Your task to perform on an android device: check android version Image 0: 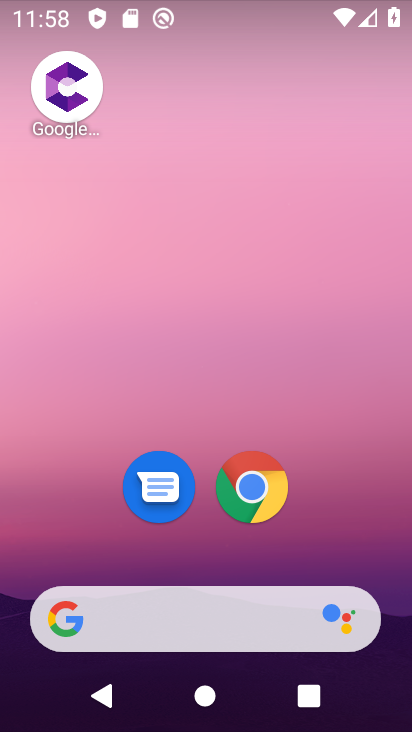
Step 0: drag from (370, 533) to (339, 89)
Your task to perform on an android device: check android version Image 1: 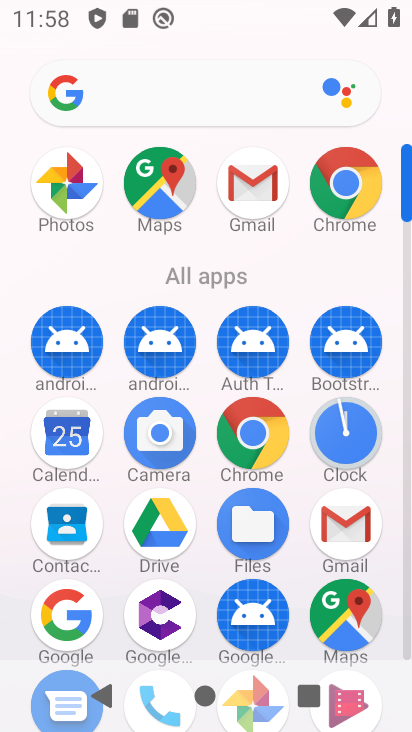
Step 1: click (406, 655)
Your task to perform on an android device: check android version Image 2: 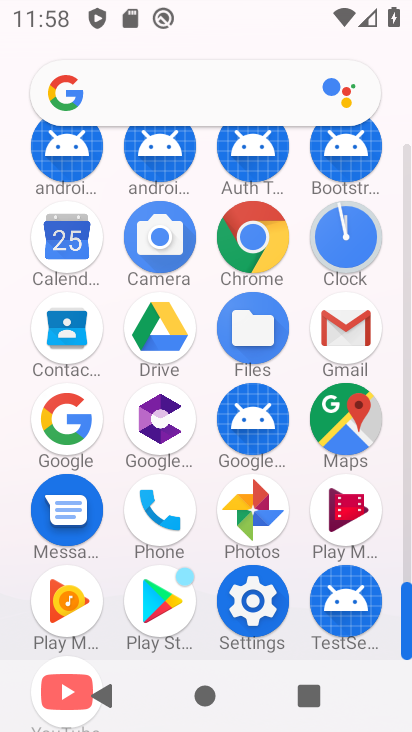
Step 2: click (250, 615)
Your task to perform on an android device: check android version Image 3: 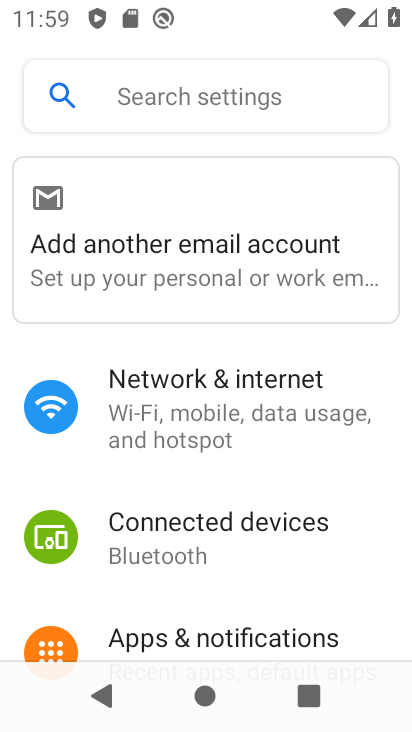
Step 3: drag from (264, 499) to (268, 309)
Your task to perform on an android device: check android version Image 4: 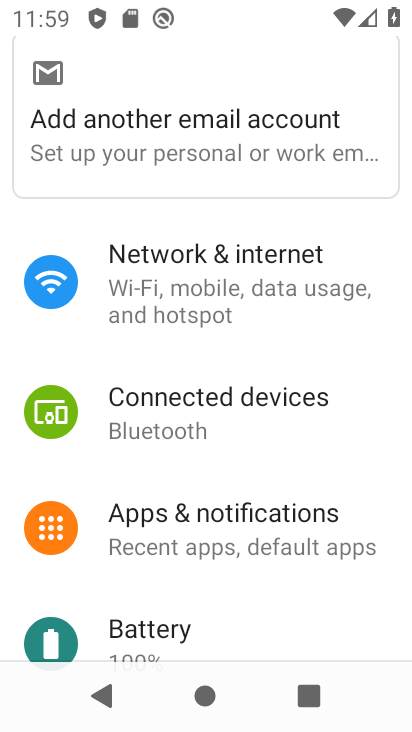
Step 4: drag from (300, 488) to (301, 87)
Your task to perform on an android device: check android version Image 5: 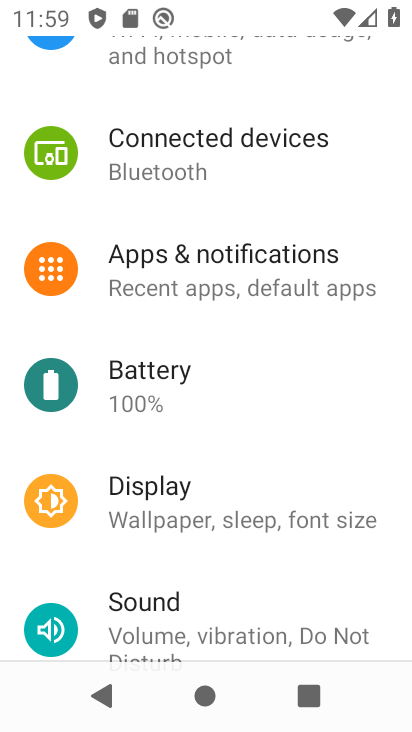
Step 5: drag from (321, 376) to (321, 113)
Your task to perform on an android device: check android version Image 6: 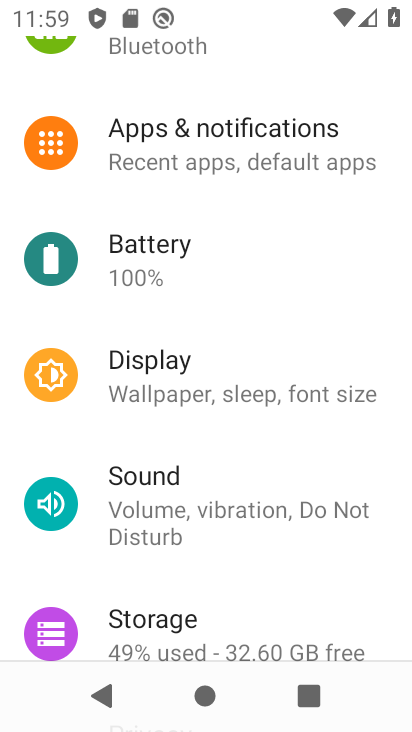
Step 6: drag from (327, 454) to (324, 133)
Your task to perform on an android device: check android version Image 7: 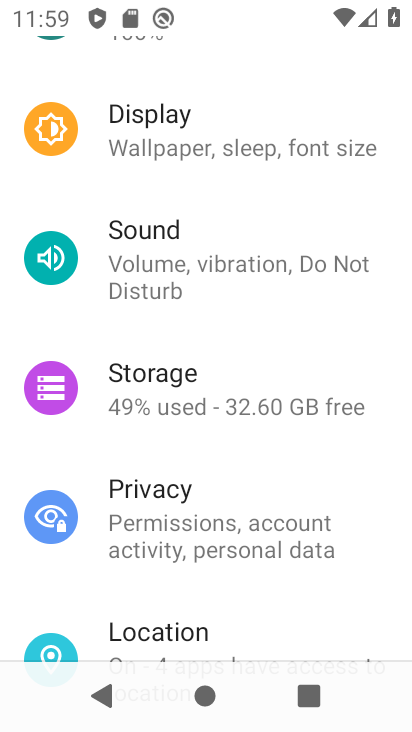
Step 7: drag from (335, 575) to (323, 174)
Your task to perform on an android device: check android version Image 8: 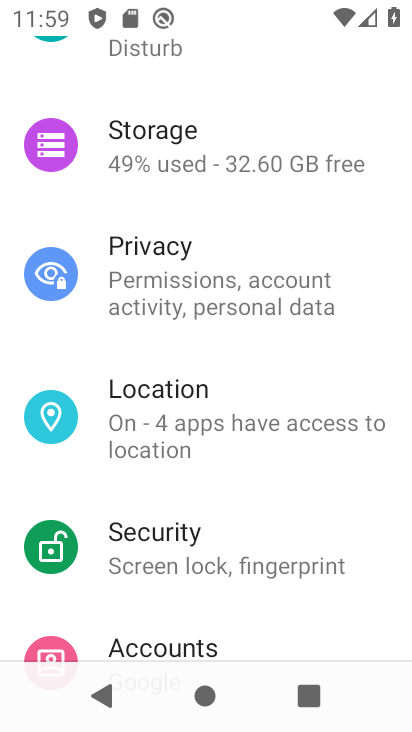
Step 8: drag from (344, 523) to (337, 122)
Your task to perform on an android device: check android version Image 9: 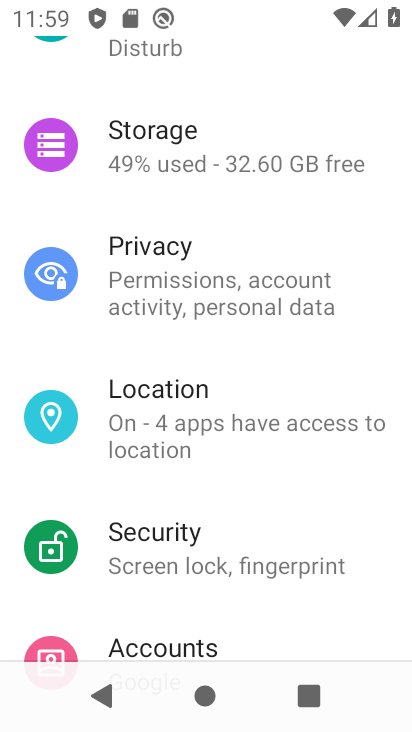
Step 9: drag from (339, 480) to (289, 105)
Your task to perform on an android device: check android version Image 10: 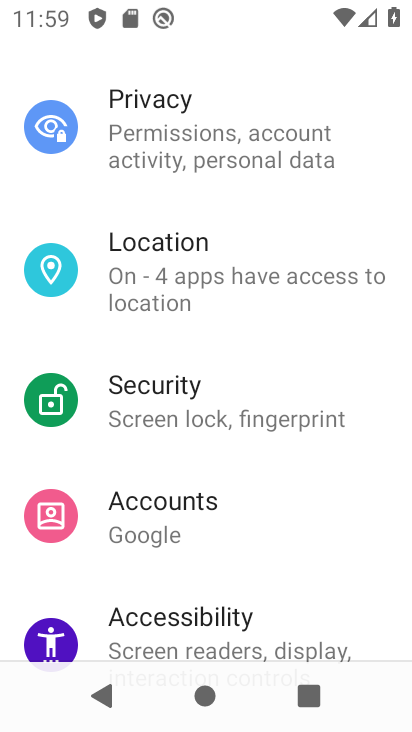
Step 10: drag from (307, 502) to (313, 67)
Your task to perform on an android device: check android version Image 11: 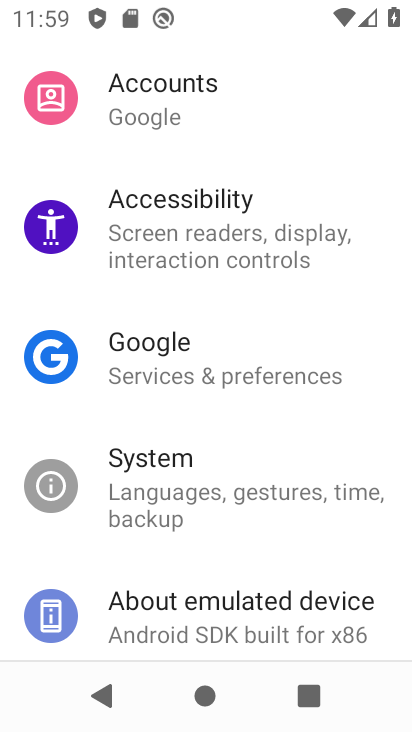
Step 11: drag from (315, 551) to (289, 123)
Your task to perform on an android device: check android version Image 12: 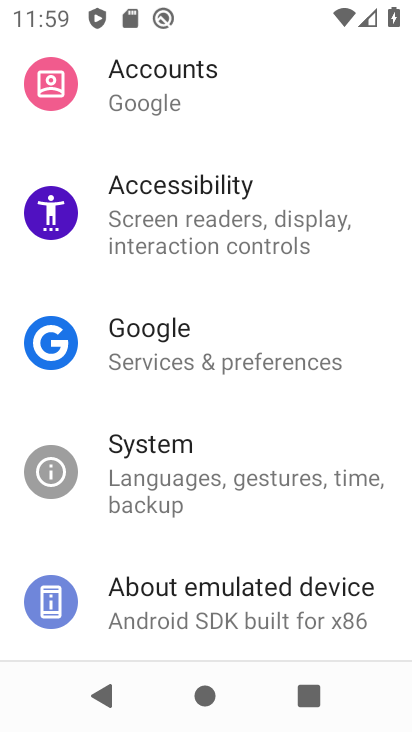
Step 12: click (309, 599)
Your task to perform on an android device: check android version Image 13: 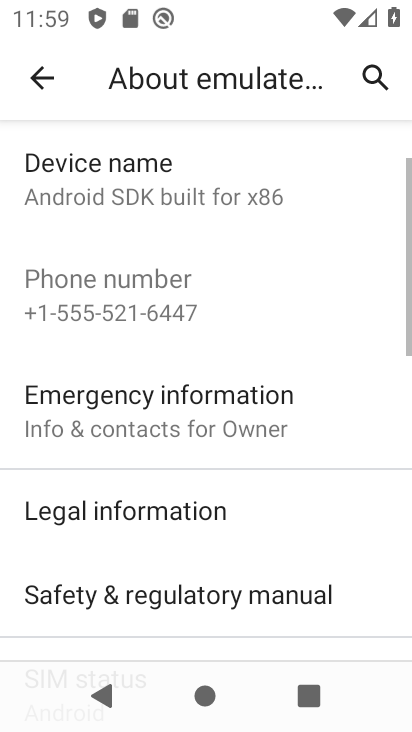
Step 13: drag from (267, 548) to (209, 82)
Your task to perform on an android device: check android version Image 14: 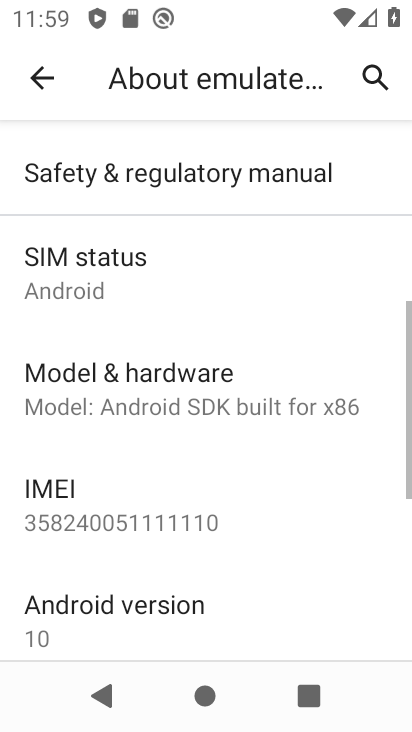
Step 14: click (181, 607)
Your task to perform on an android device: check android version Image 15: 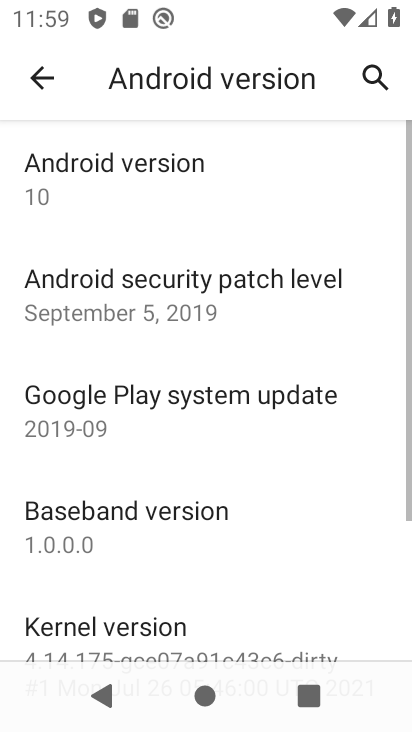
Step 15: task complete